Your task to perform on an android device: Go to sound settings Image 0: 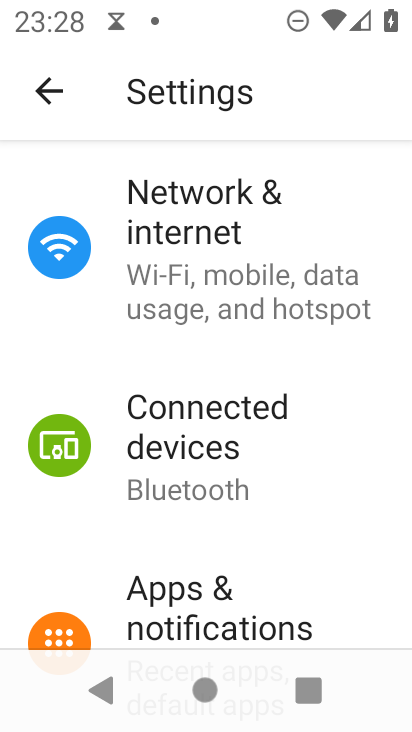
Step 0: drag from (304, 615) to (295, 238)
Your task to perform on an android device: Go to sound settings Image 1: 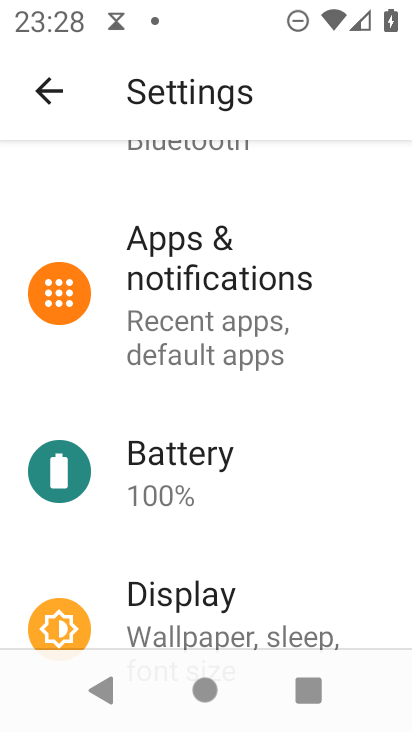
Step 1: drag from (277, 616) to (296, 150)
Your task to perform on an android device: Go to sound settings Image 2: 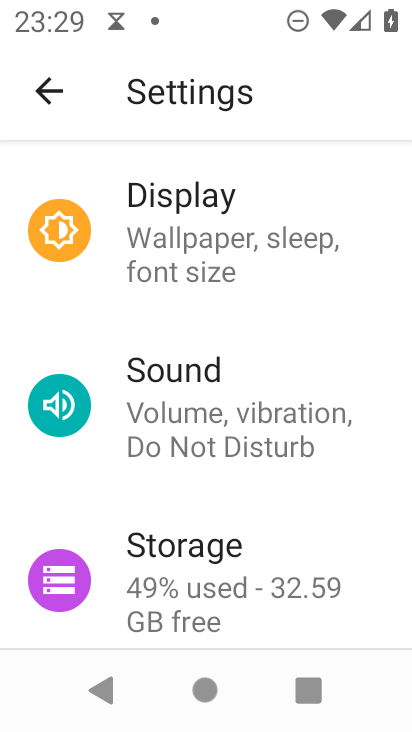
Step 2: click (231, 423)
Your task to perform on an android device: Go to sound settings Image 3: 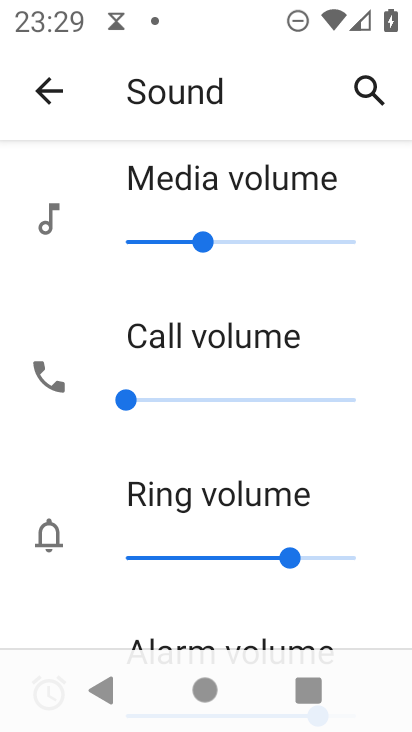
Step 3: task complete